Your task to perform on an android device: View the shopping cart on ebay.com. Image 0: 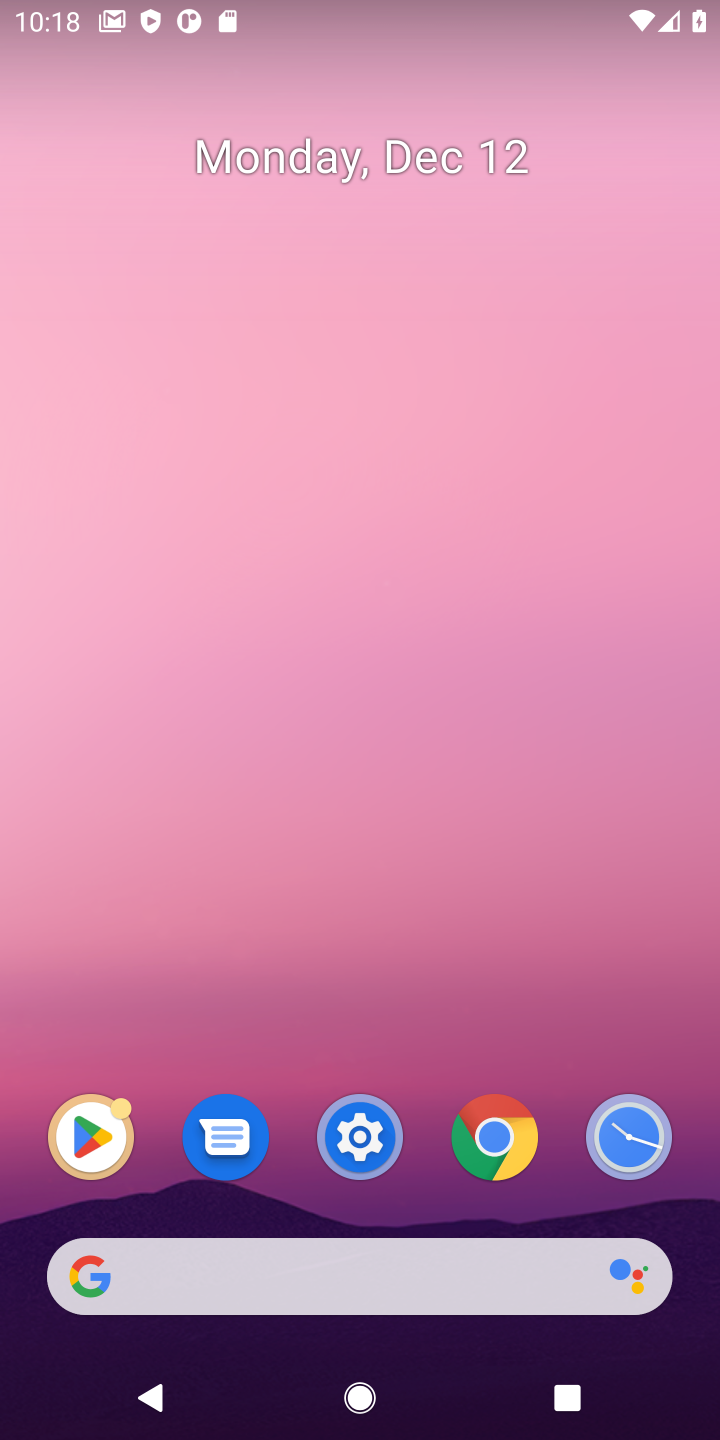
Step 0: click (478, 1176)
Your task to perform on an android device: View the shopping cart on ebay.com. Image 1: 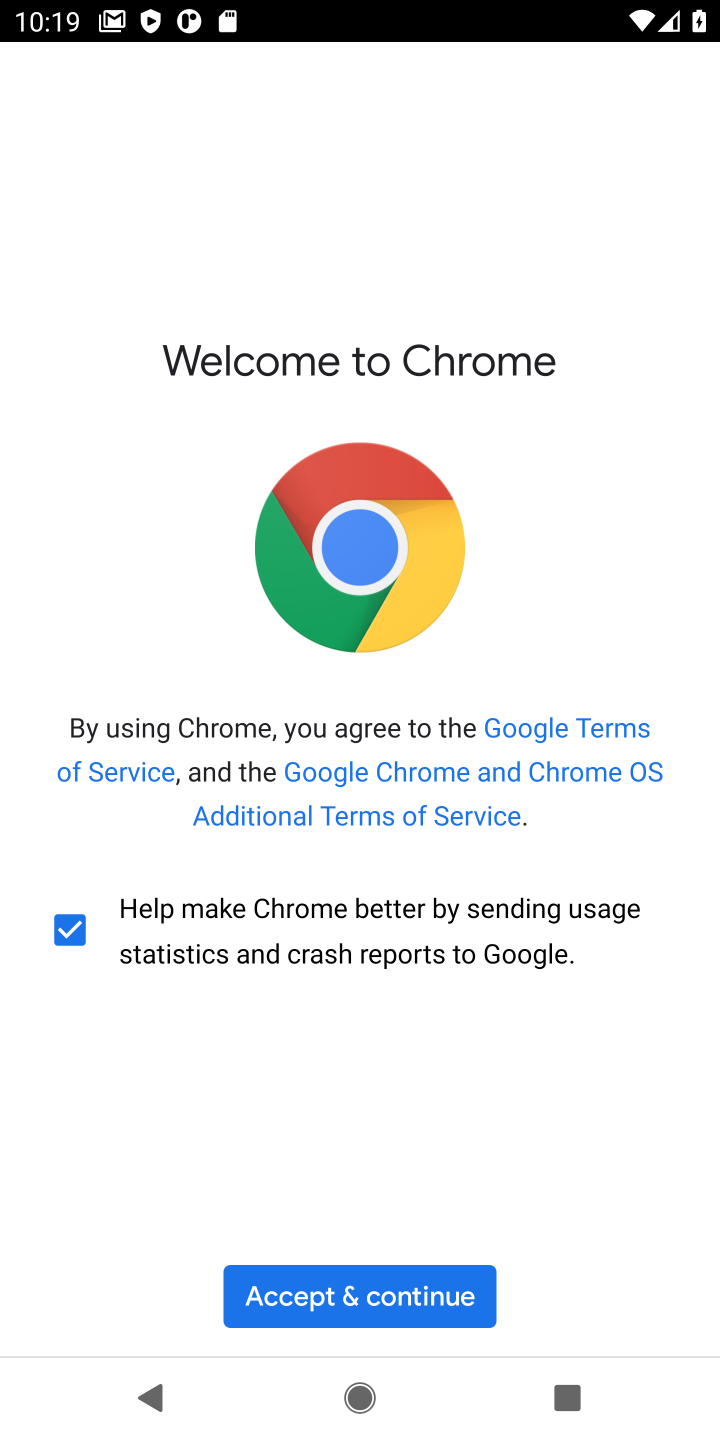
Step 1: click (372, 1266)
Your task to perform on an android device: View the shopping cart on ebay.com. Image 2: 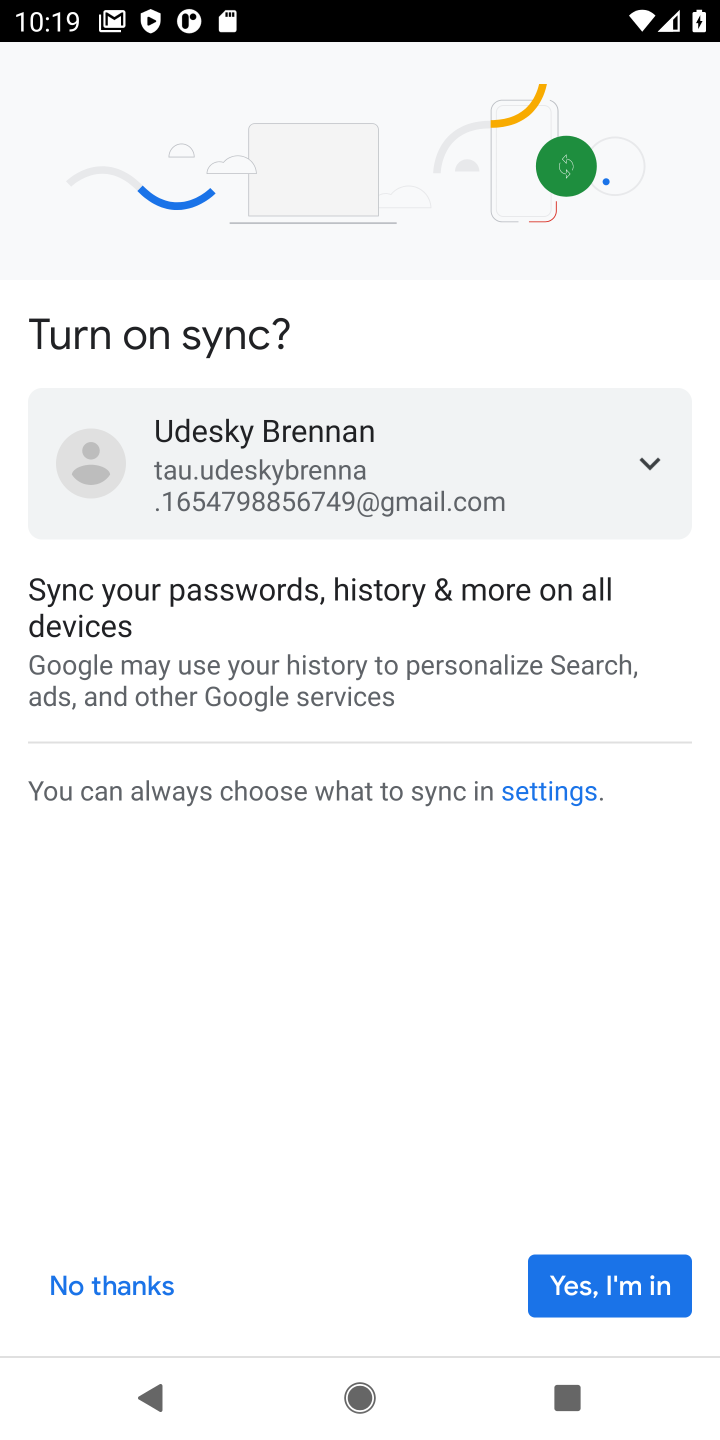
Step 2: click (570, 1264)
Your task to perform on an android device: View the shopping cart on ebay.com. Image 3: 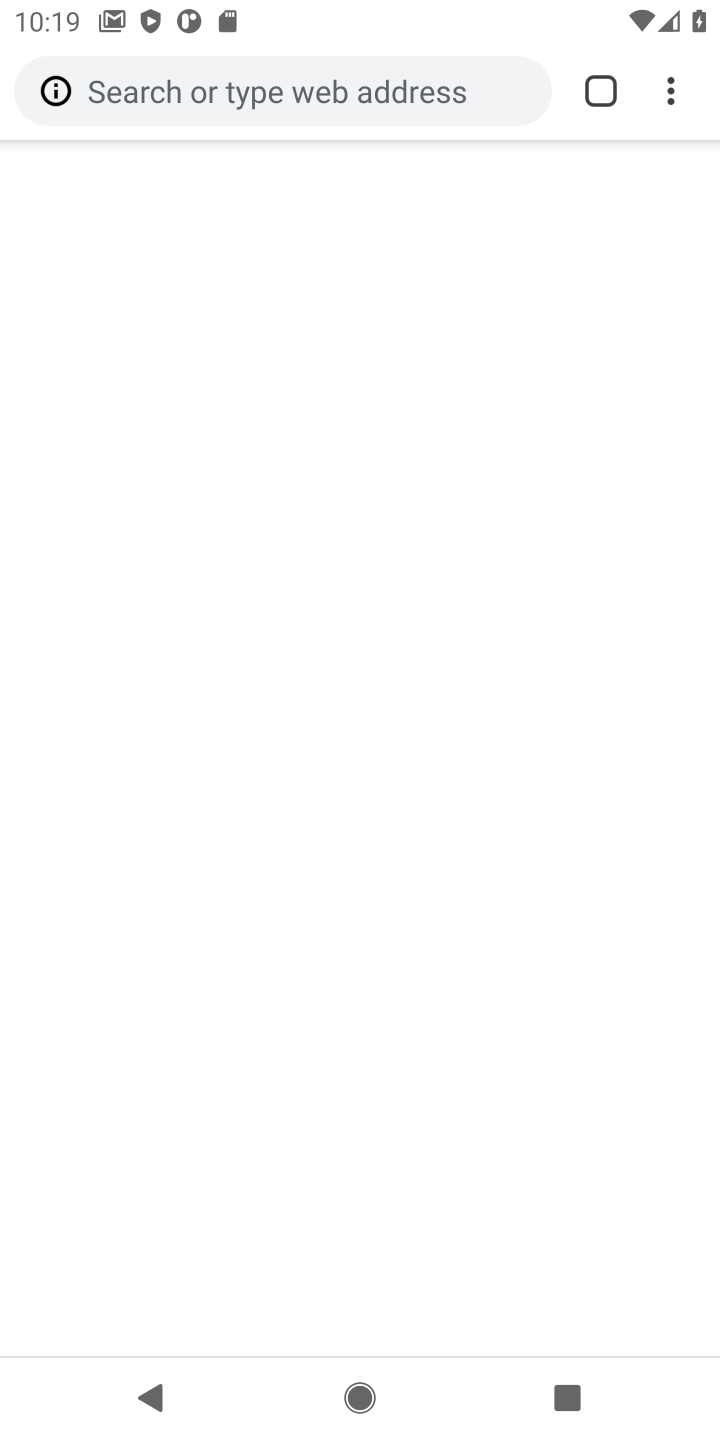
Step 3: click (570, 1264)
Your task to perform on an android device: View the shopping cart on ebay.com. Image 4: 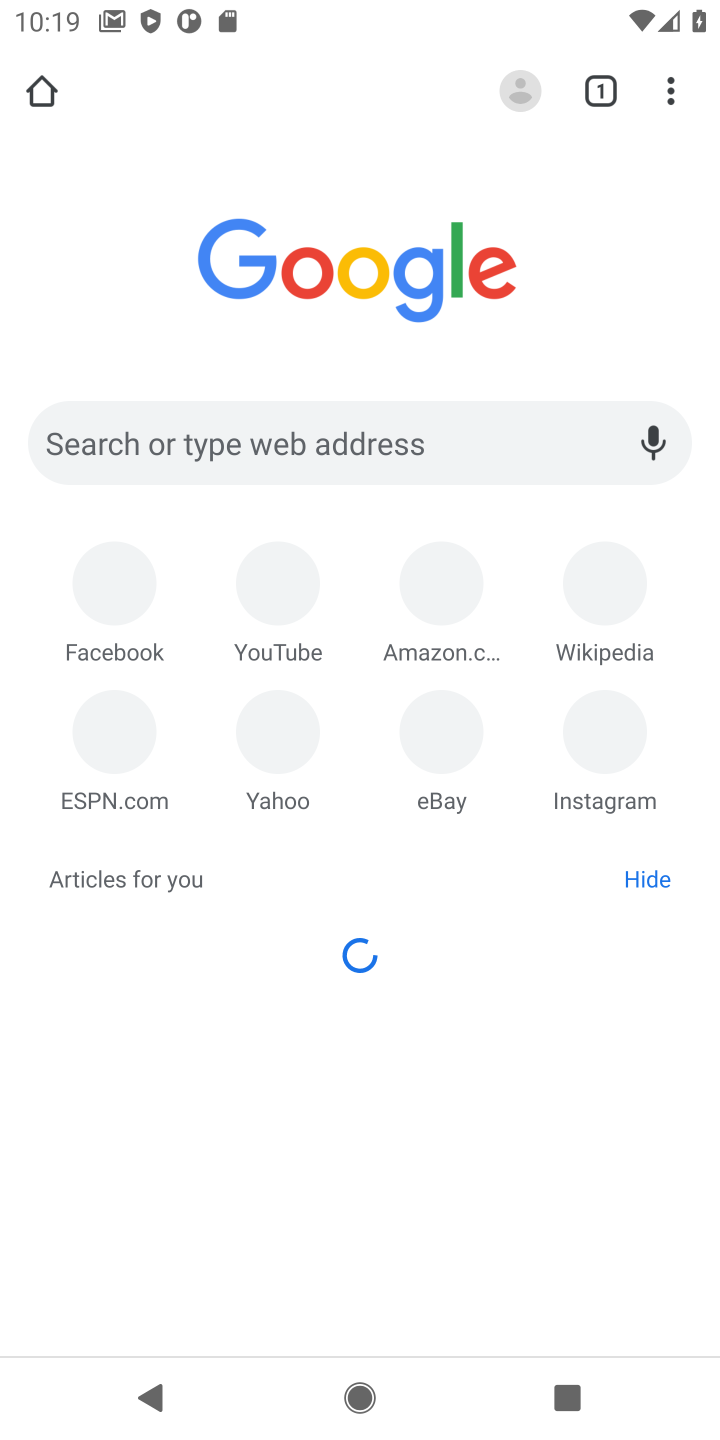
Step 4: click (281, 471)
Your task to perform on an android device: View the shopping cart on ebay.com. Image 5: 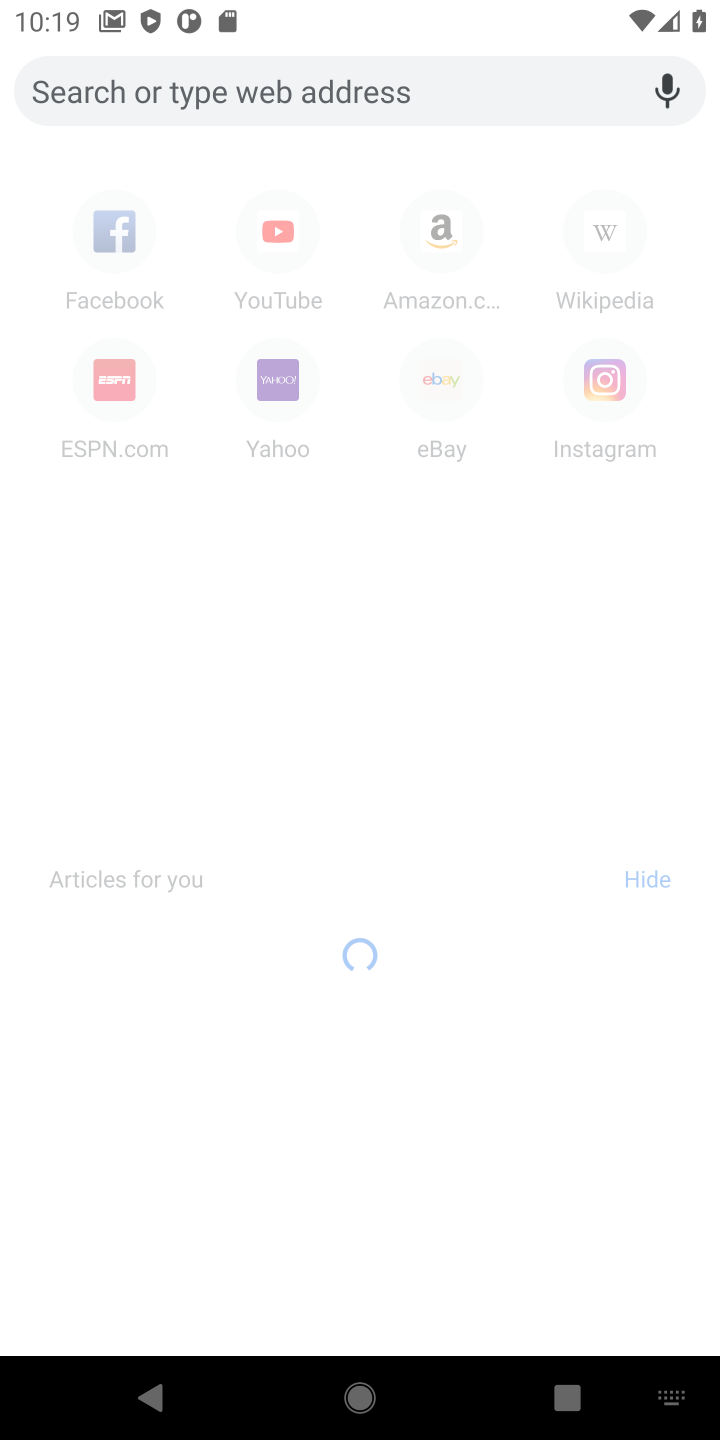
Step 5: type "ebay"
Your task to perform on an android device: View the shopping cart on ebay.com. Image 6: 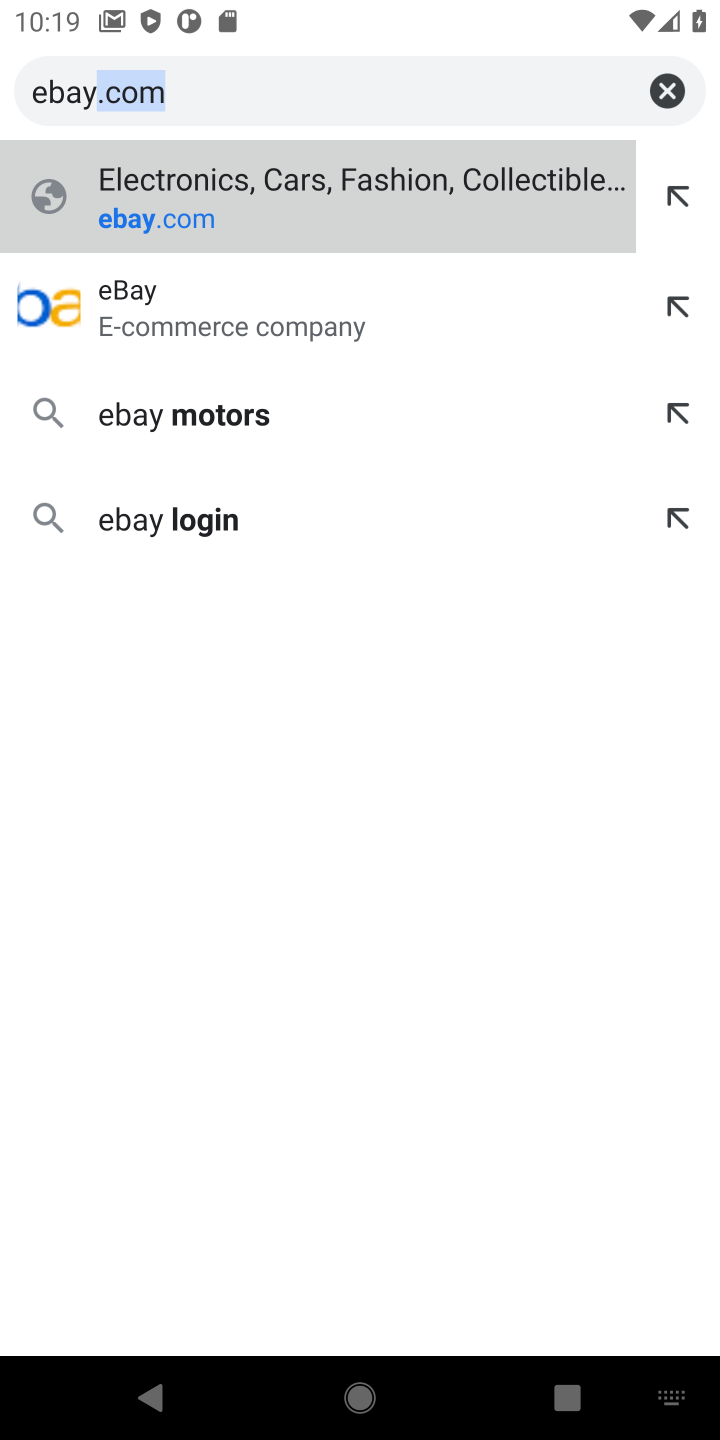
Step 6: click (241, 184)
Your task to perform on an android device: View the shopping cart on ebay.com. Image 7: 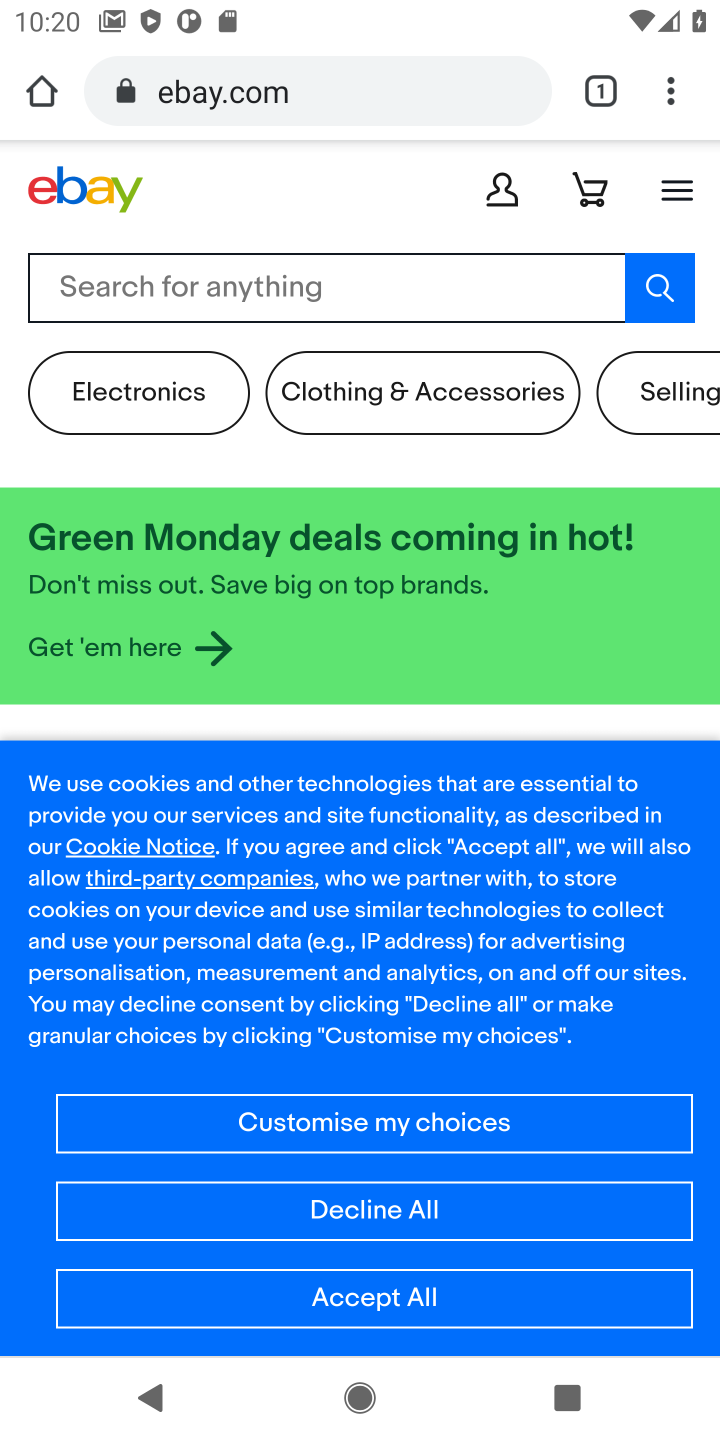
Step 7: click (157, 292)
Your task to perform on an android device: View the shopping cart on ebay.com. Image 8: 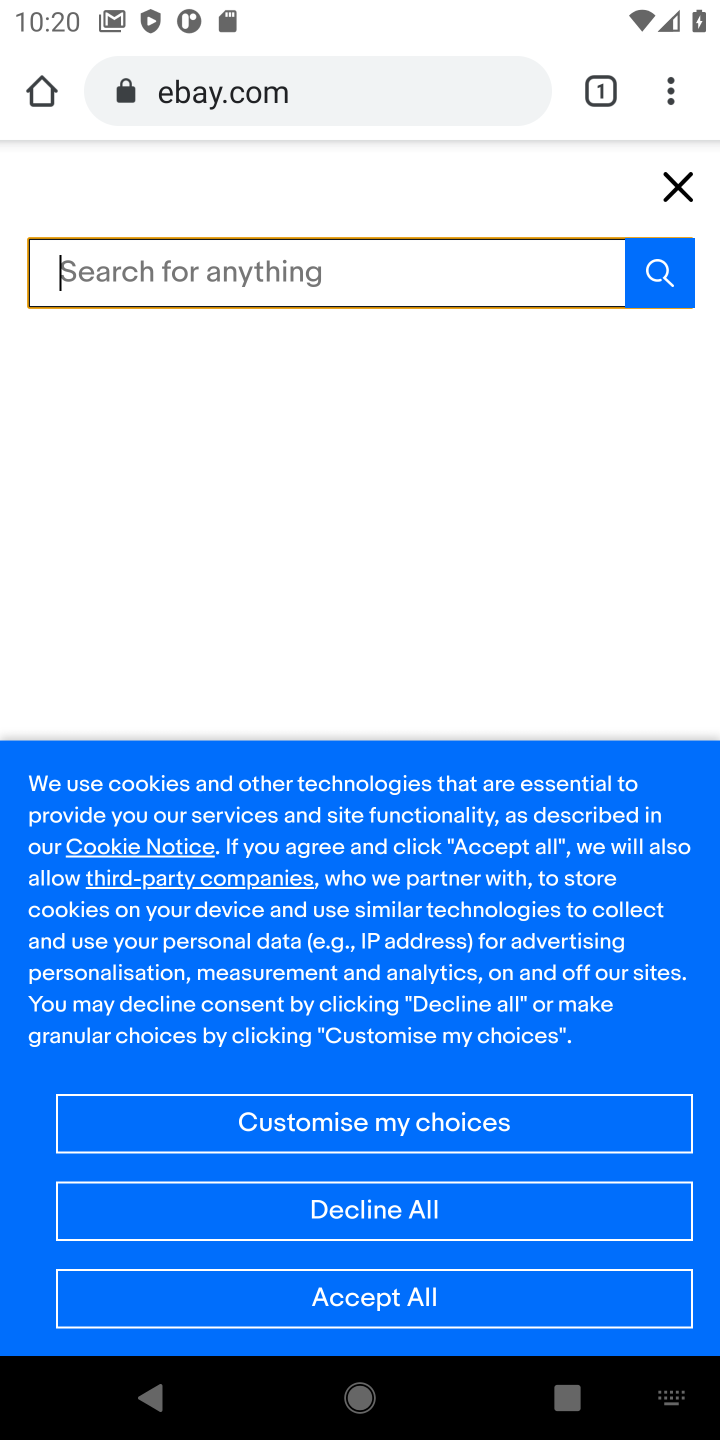
Step 8: click (676, 197)
Your task to perform on an android device: View the shopping cart on ebay.com. Image 9: 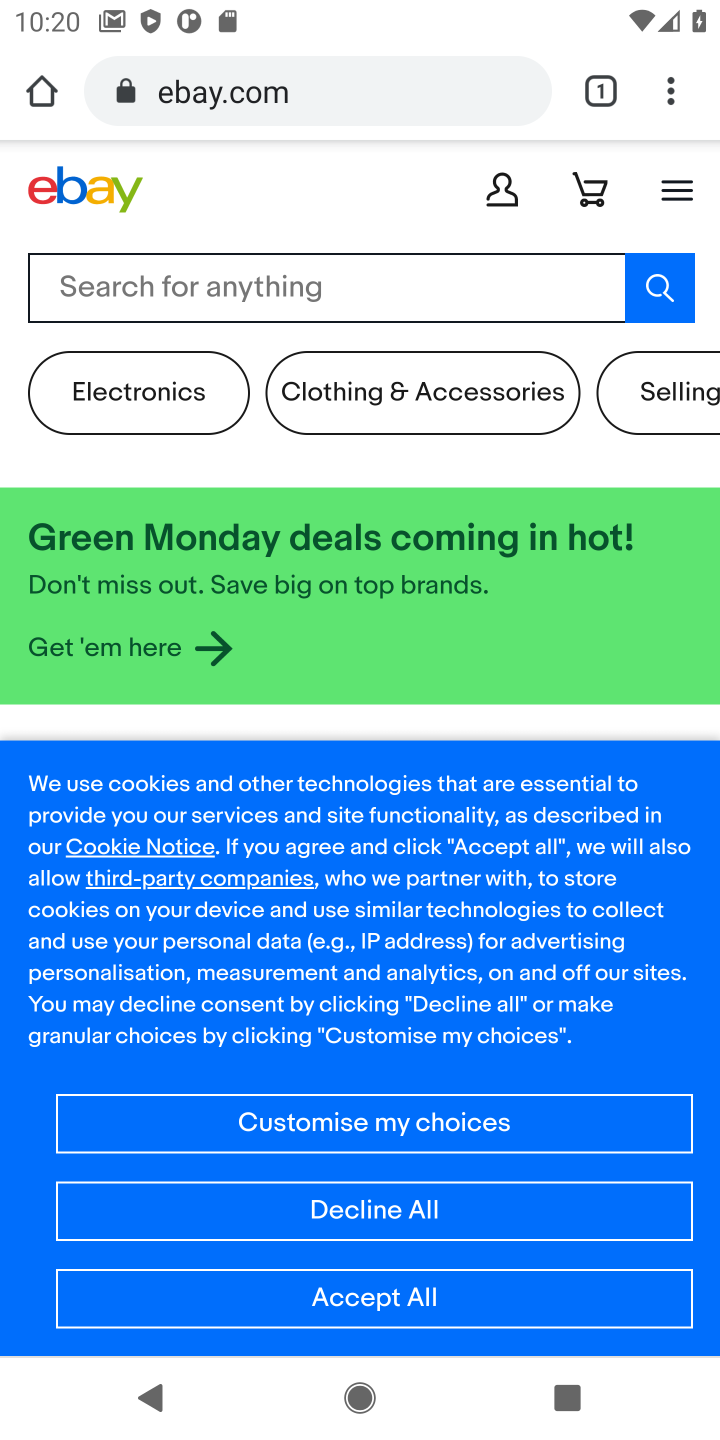
Step 9: click (569, 170)
Your task to perform on an android device: View the shopping cart on ebay.com. Image 10: 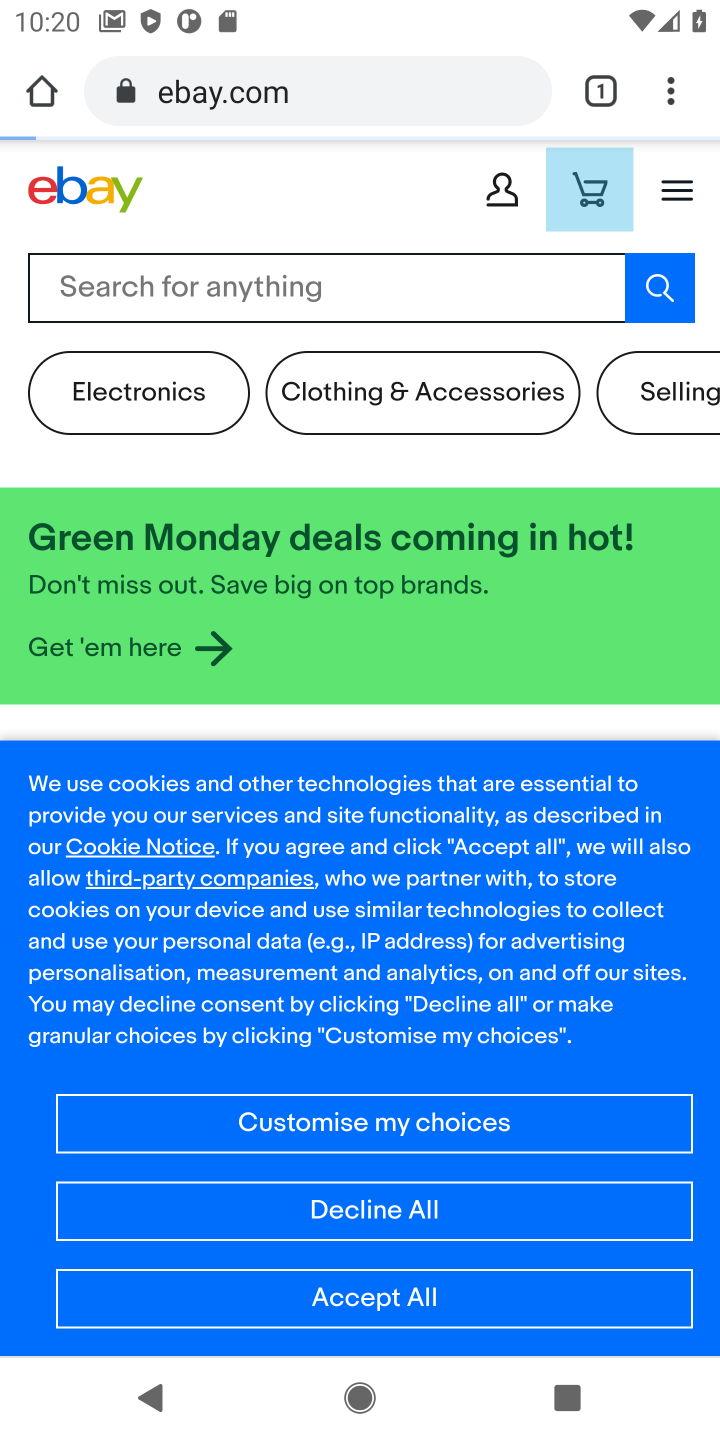
Step 10: task complete